Your task to perform on an android device: Open calendar and show me the third week of next month Image 0: 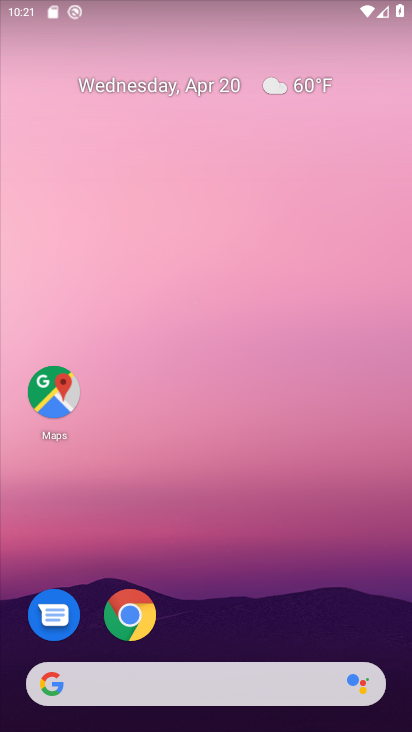
Step 0: drag from (389, 616) to (353, 218)
Your task to perform on an android device: Open calendar and show me the third week of next month Image 1: 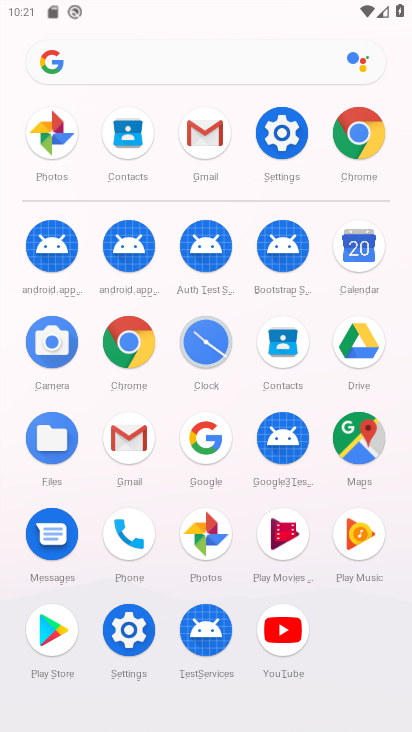
Step 1: drag from (336, 626) to (290, 231)
Your task to perform on an android device: Open calendar and show me the third week of next month Image 2: 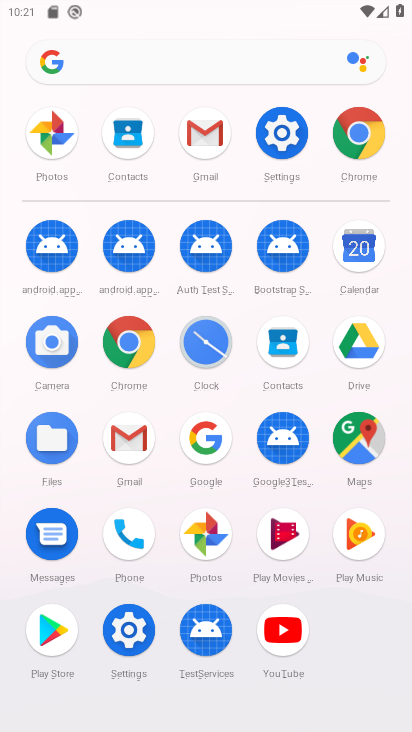
Step 2: click (356, 252)
Your task to perform on an android device: Open calendar and show me the third week of next month Image 3: 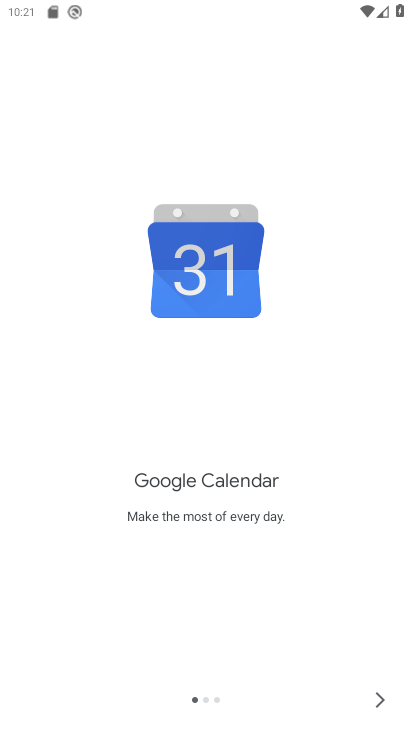
Step 3: click (376, 704)
Your task to perform on an android device: Open calendar and show me the third week of next month Image 4: 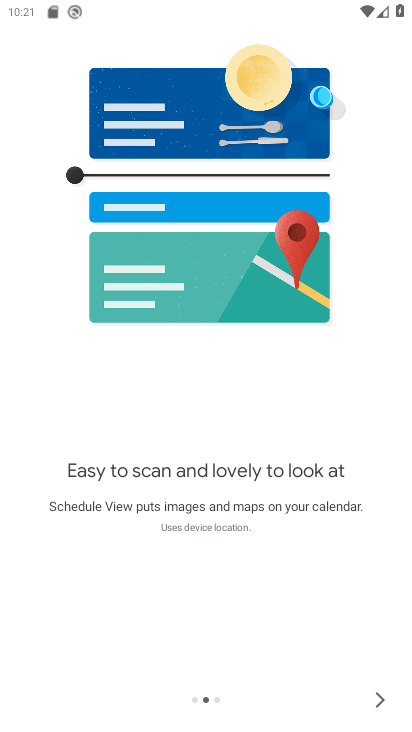
Step 4: click (377, 706)
Your task to perform on an android device: Open calendar and show me the third week of next month Image 5: 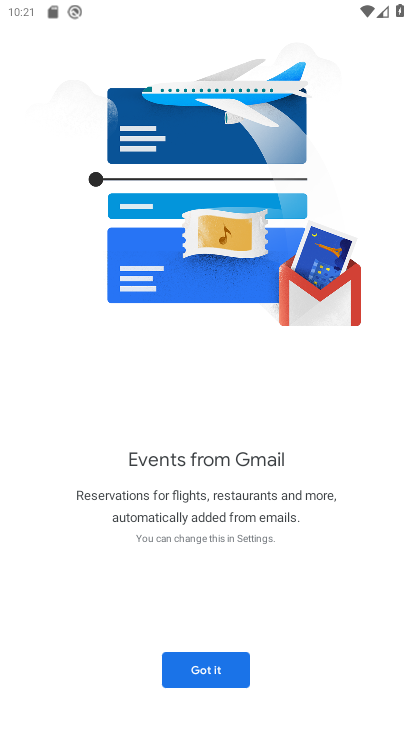
Step 5: click (241, 676)
Your task to perform on an android device: Open calendar and show me the third week of next month Image 6: 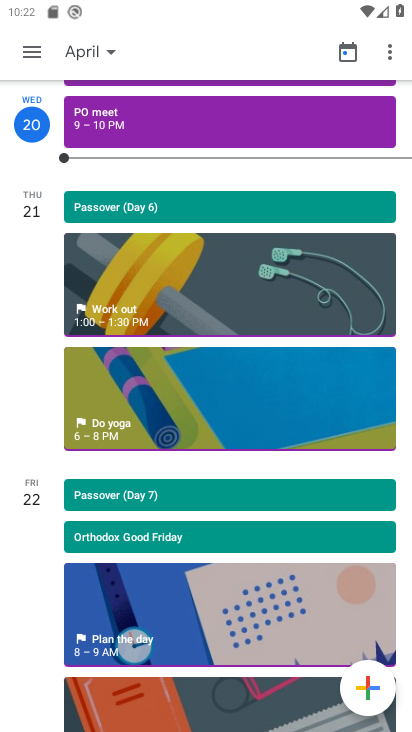
Step 6: click (91, 55)
Your task to perform on an android device: Open calendar and show me the third week of next month Image 7: 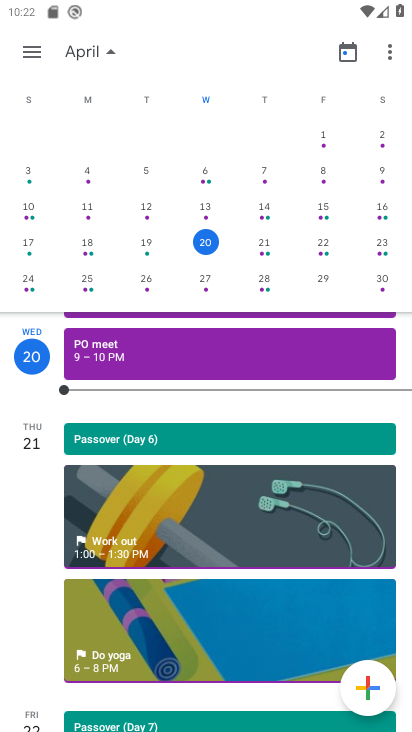
Step 7: drag from (353, 126) to (0, 132)
Your task to perform on an android device: Open calendar and show me the third week of next month Image 8: 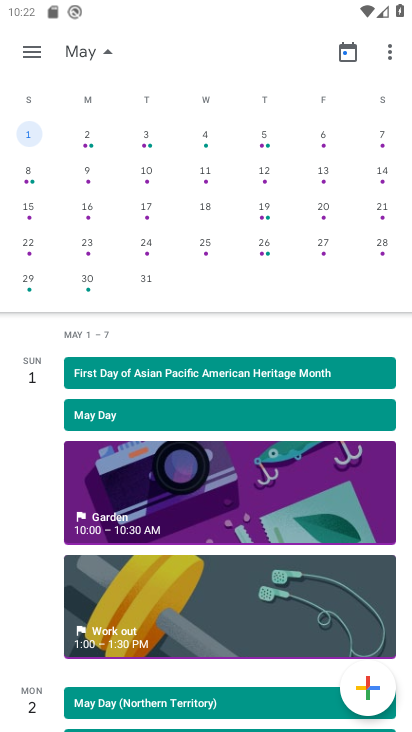
Step 8: click (25, 213)
Your task to perform on an android device: Open calendar and show me the third week of next month Image 9: 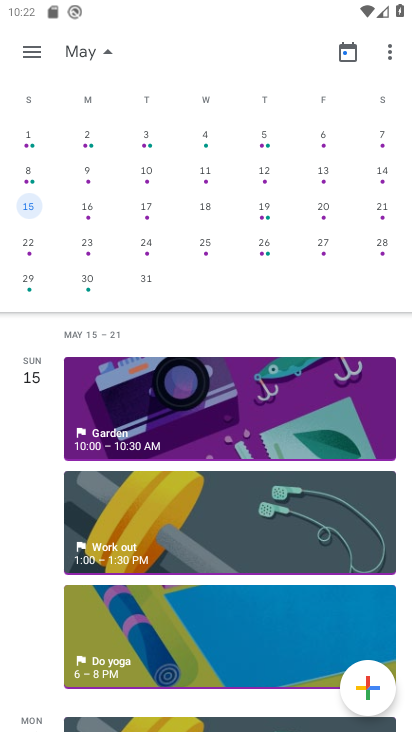
Step 9: task complete